Your task to perform on an android device: Check the news Image 0: 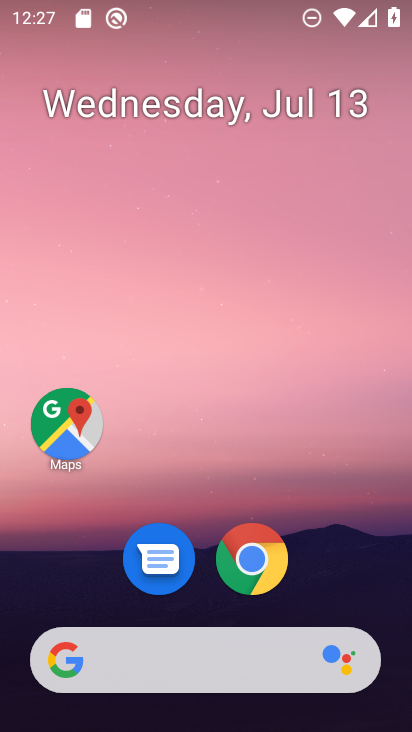
Step 0: drag from (237, 613) to (251, 167)
Your task to perform on an android device: Check the news Image 1: 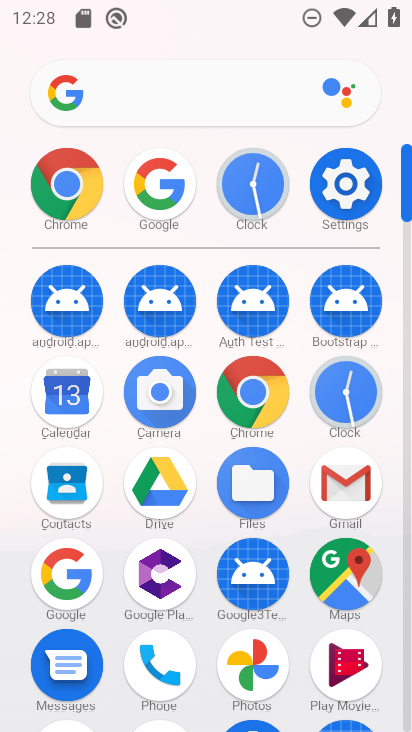
Step 1: click (80, 576)
Your task to perform on an android device: Check the news Image 2: 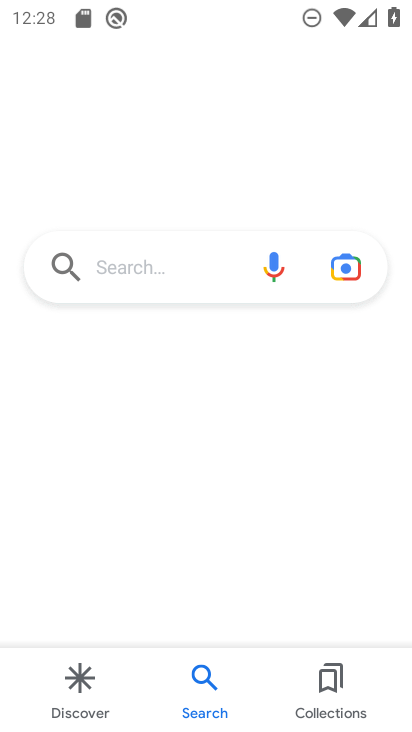
Step 2: click (184, 270)
Your task to perform on an android device: Check the news Image 3: 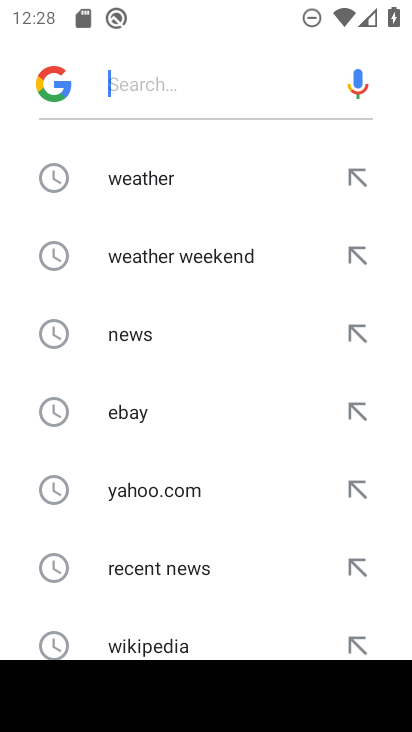
Step 3: click (174, 346)
Your task to perform on an android device: Check the news Image 4: 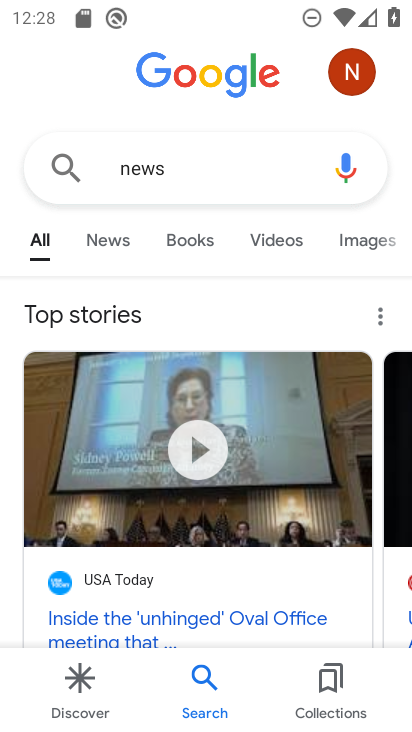
Step 4: click (100, 234)
Your task to perform on an android device: Check the news Image 5: 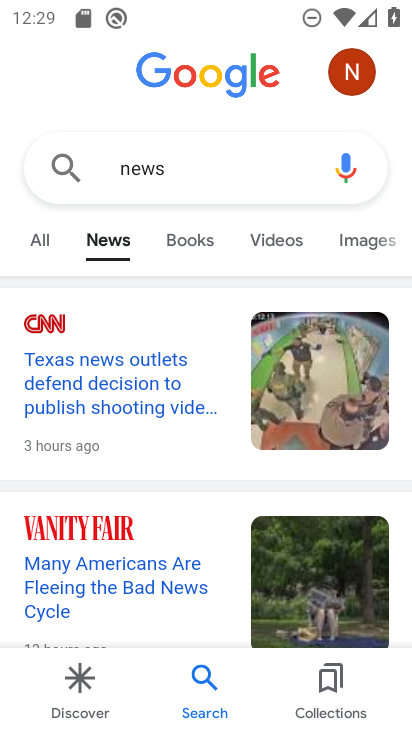
Step 5: task complete